Your task to perform on an android device: empty trash in the gmail app Image 0: 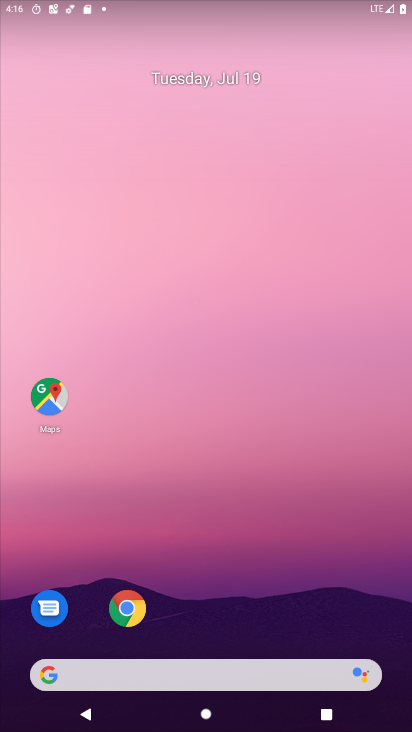
Step 0: drag from (198, 671) to (240, 106)
Your task to perform on an android device: empty trash in the gmail app Image 1: 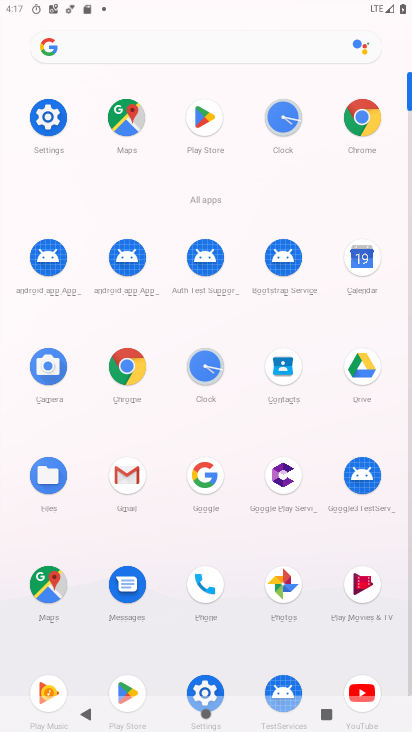
Step 1: click (127, 472)
Your task to perform on an android device: empty trash in the gmail app Image 2: 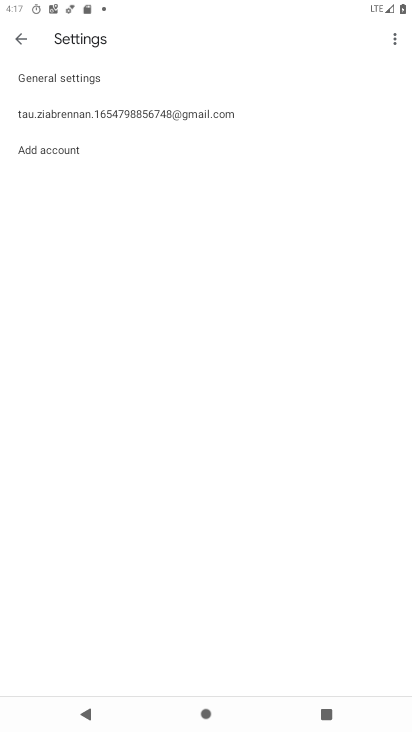
Step 2: press back button
Your task to perform on an android device: empty trash in the gmail app Image 3: 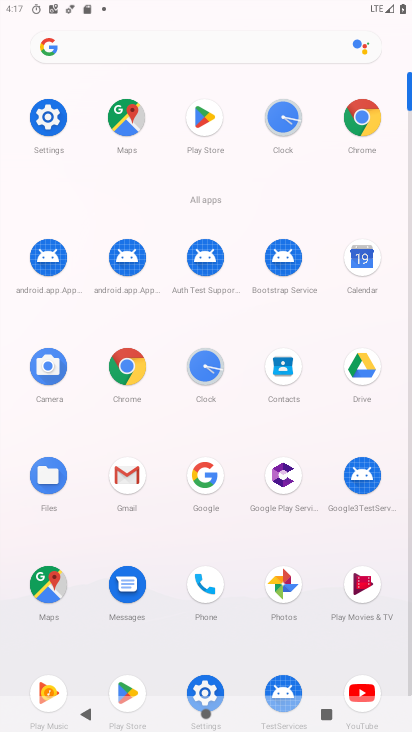
Step 3: click (126, 473)
Your task to perform on an android device: empty trash in the gmail app Image 4: 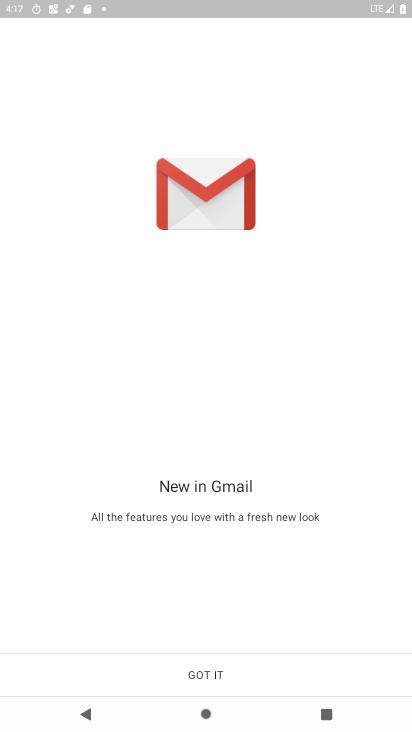
Step 4: click (201, 672)
Your task to perform on an android device: empty trash in the gmail app Image 5: 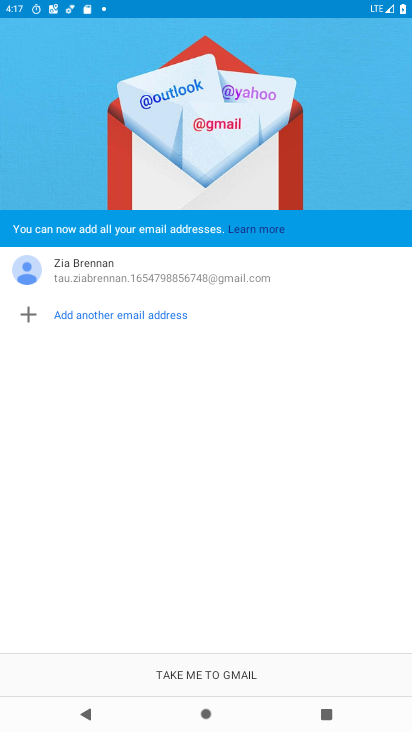
Step 5: click (201, 672)
Your task to perform on an android device: empty trash in the gmail app Image 6: 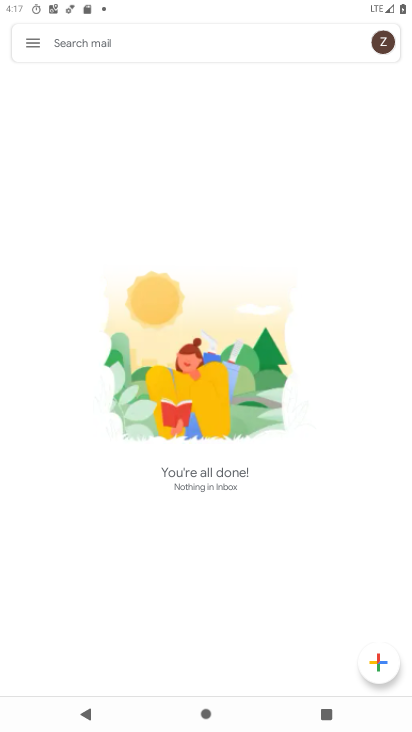
Step 6: click (33, 43)
Your task to perform on an android device: empty trash in the gmail app Image 7: 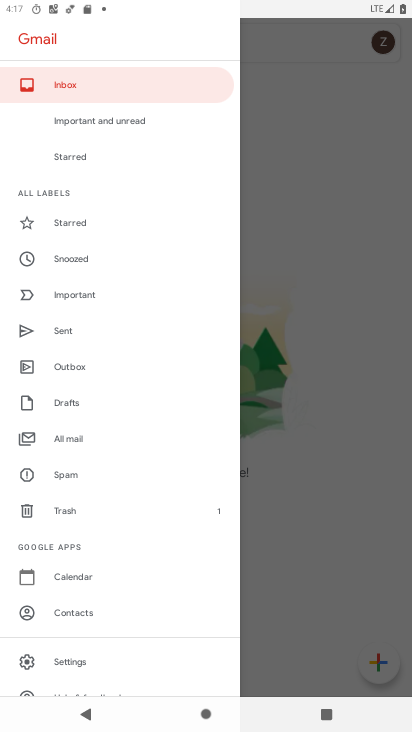
Step 7: click (64, 510)
Your task to perform on an android device: empty trash in the gmail app Image 8: 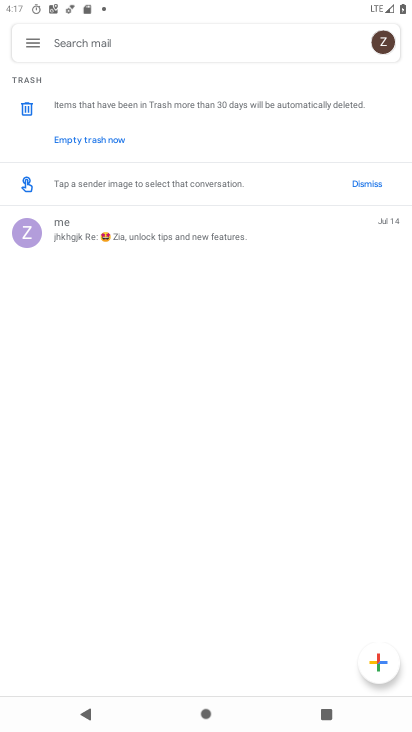
Step 8: click (98, 136)
Your task to perform on an android device: empty trash in the gmail app Image 9: 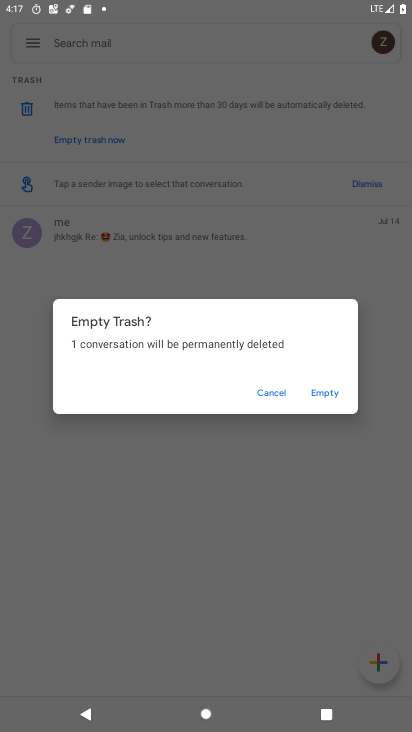
Step 9: click (324, 389)
Your task to perform on an android device: empty trash in the gmail app Image 10: 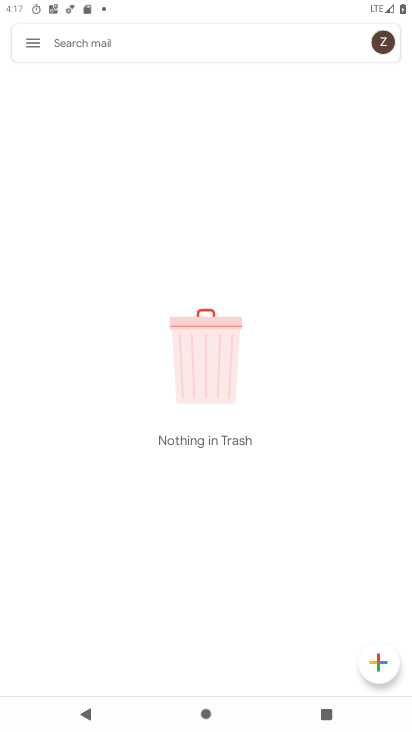
Step 10: task complete